Your task to perform on an android device: turn off javascript in the chrome app Image 0: 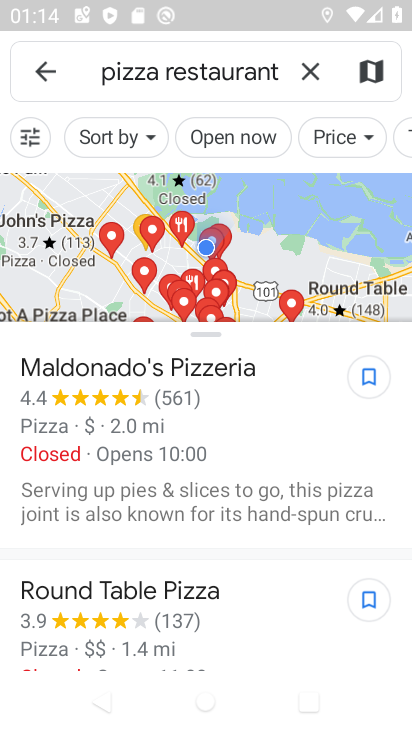
Step 0: press home button
Your task to perform on an android device: turn off javascript in the chrome app Image 1: 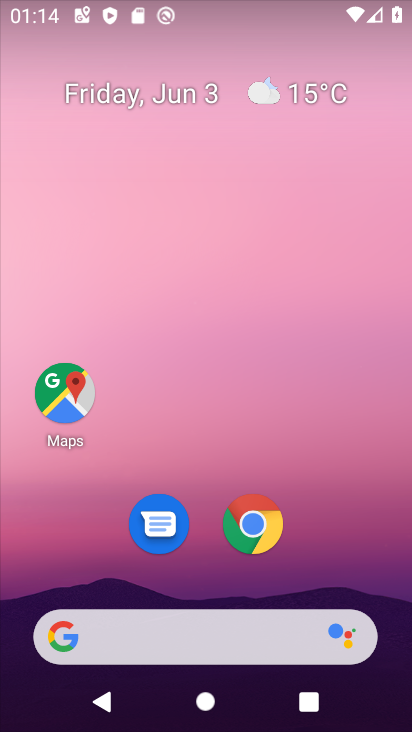
Step 1: click (261, 520)
Your task to perform on an android device: turn off javascript in the chrome app Image 2: 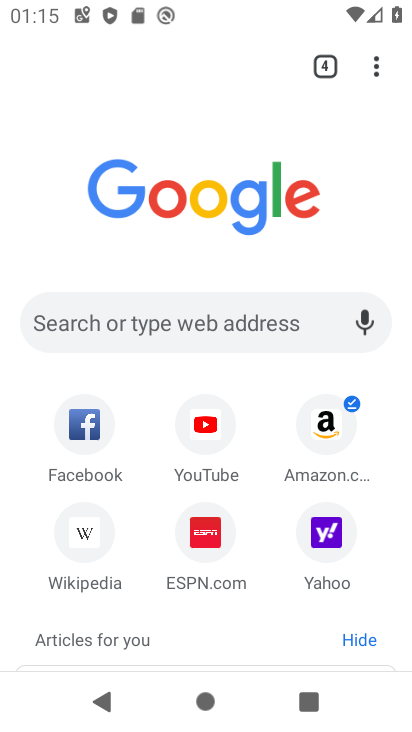
Step 2: click (374, 60)
Your task to perform on an android device: turn off javascript in the chrome app Image 3: 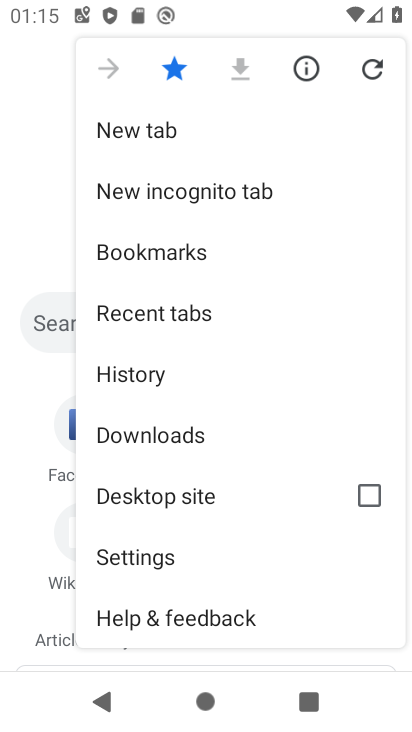
Step 3: click (203, 549)
Your task to perform on an android device: turn off javascript in the chrome app Image 4: 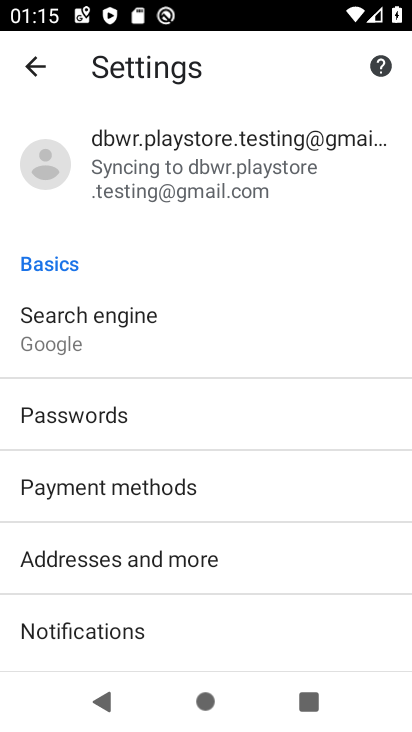
Step 4: drag from (210, 612) to (239, 184)
Your task to perform on an android device: turn off javascript in the chrome app Image 5: 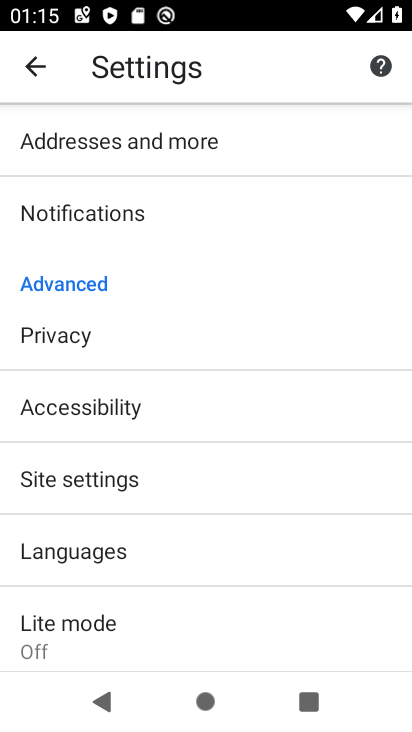
Step 5: click (171, 479)
Your task to perform on an android device: turn off javascript in the chrome app Image 6: 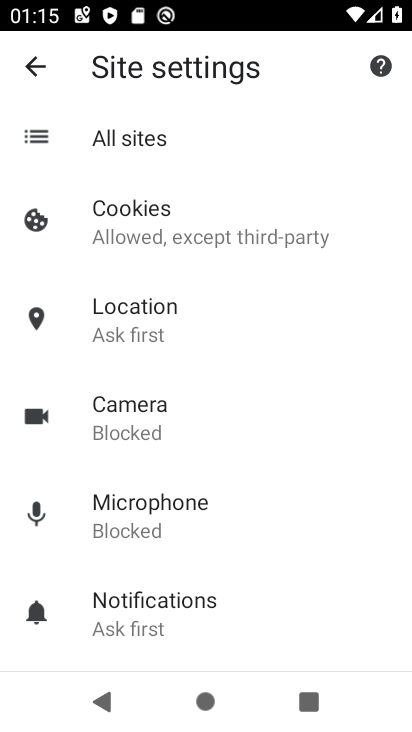
Step 6: drag from (225, 524) to (235, 347)
Your task to perform on an android device: turn off javascript in the chrome app Image 7: 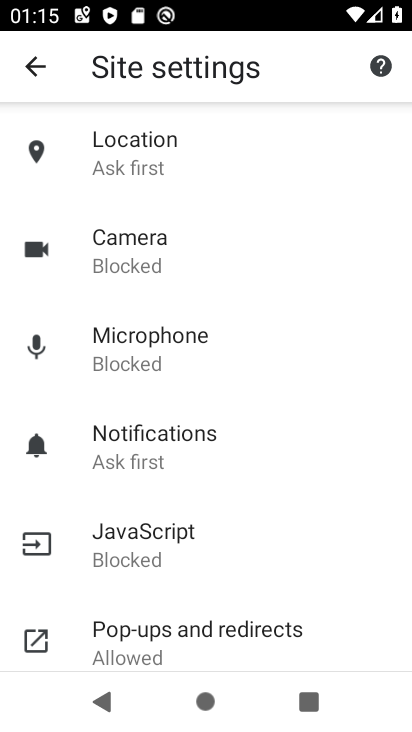
Step 7: click (205, 529)
Your task to perform on an android device: turn off javascript in the chrome app Image 8: 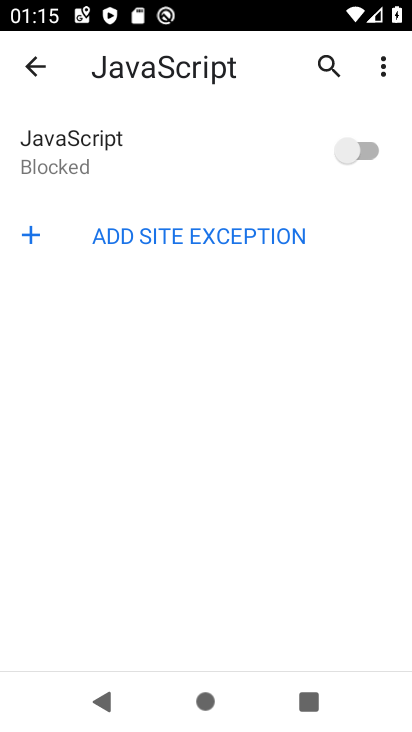
Step 8: task complete